Your task to perform on an android device: Go to CNN.com Image 0: 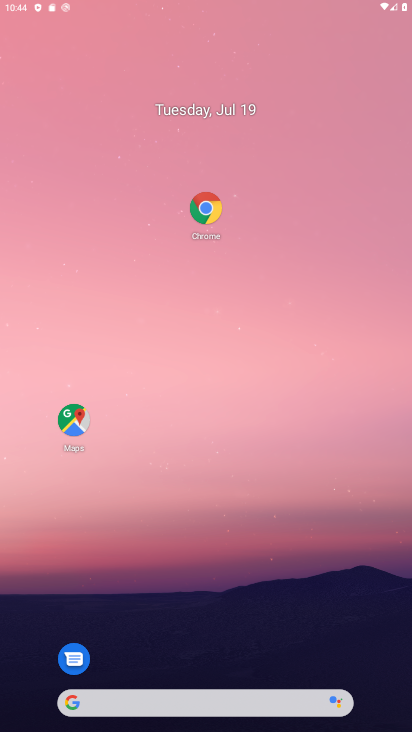
Step 0: drag from (229, 638) to (363, 6)
Your task to perform on an android device: Go to CNN.com Image 1: 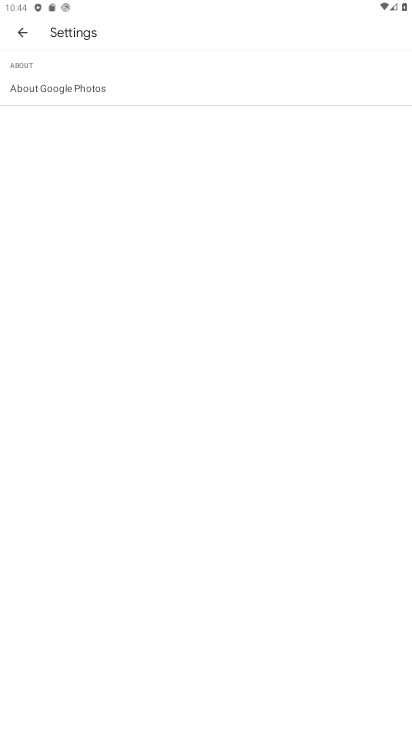
Step 1: press home button
Your task to perform on an android device: Go to CNN.com Image 2: 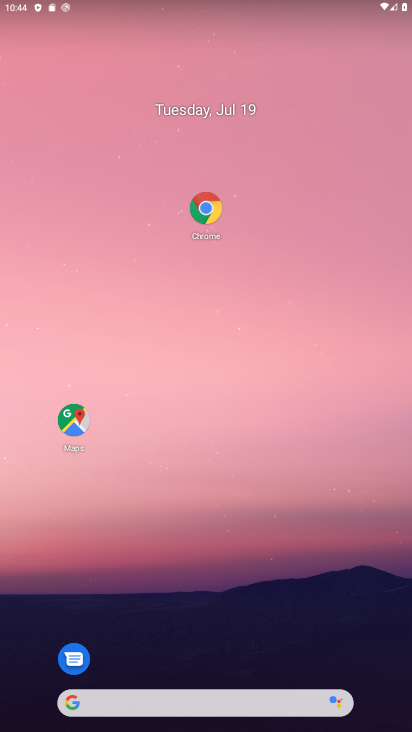
Step 2: click (203, 201)
Your task to perform on an android device: Go to CNN.com Image 3: 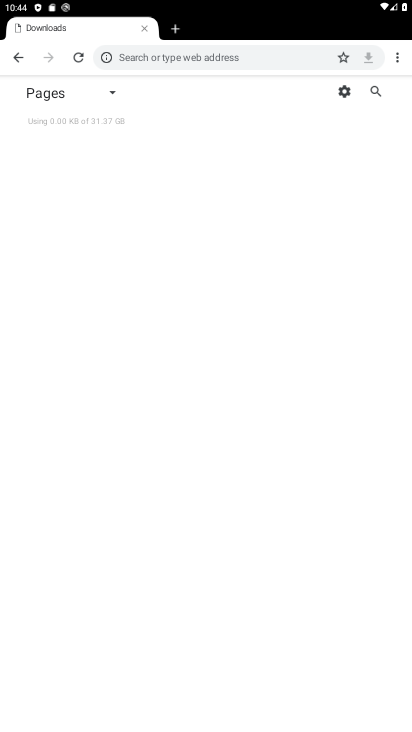
Step 3: click (276, 61)
Your task to perform on an android device: Go to CNN.com Image 4: 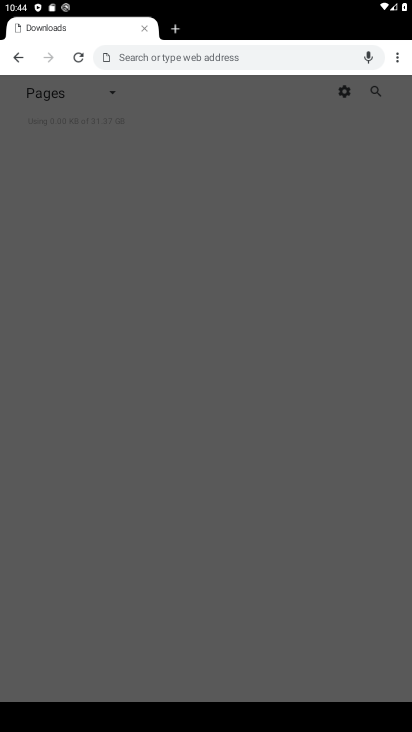
Step 4: type "CNN.com"
Your task to perform on an android device: Go to CNN.com Image 5: 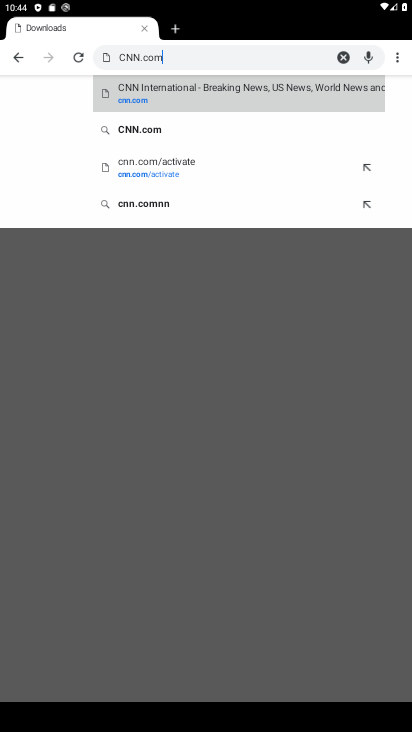
Step 5: click (216, 115)
Your task to perform on an android device: Go to CNN.com Image 6: 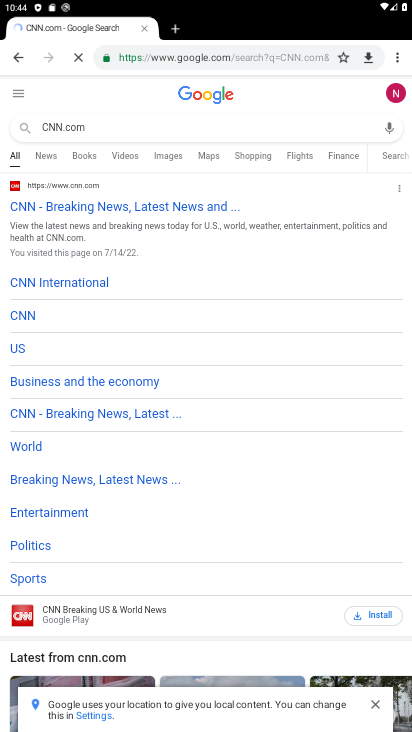
Step 6: click (114, 213)
Your task to perform on an android device: Go to CNN.com Image 7: 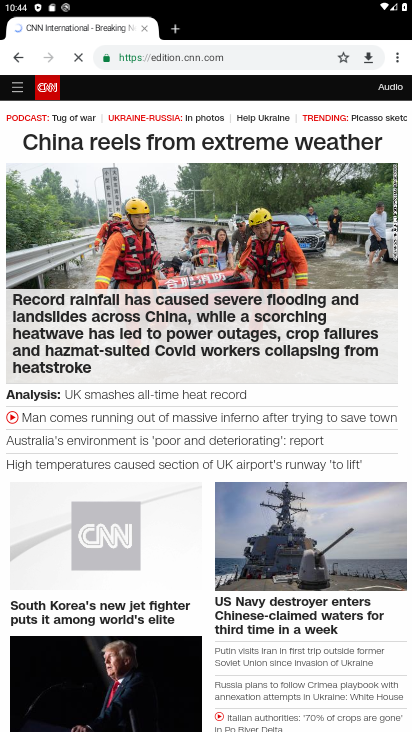
Step 7: task complete